Your task to perform on an android device: search for starred emails in the gmail app Image 0: 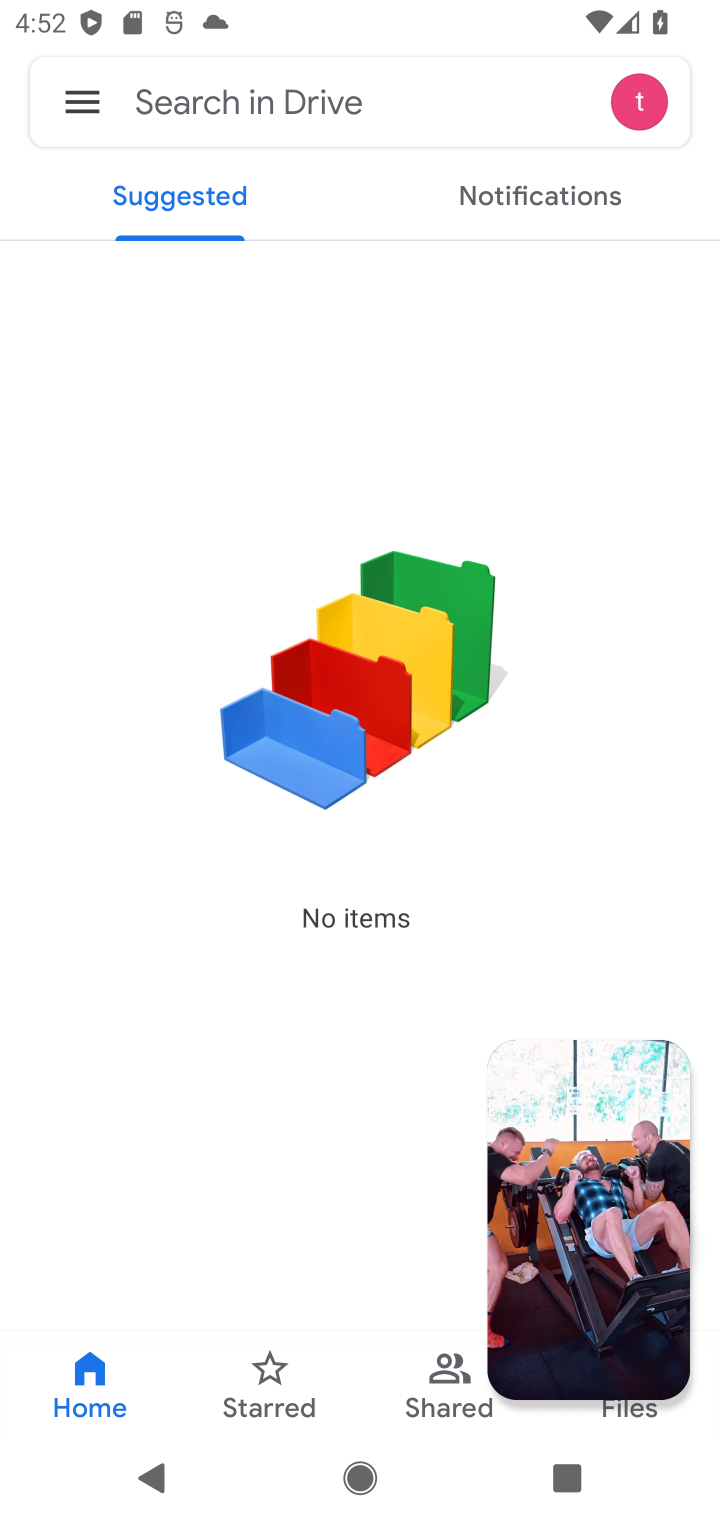
Step 0: click (668, 1081)
Your task to perform on an android device: search for starred emails in the gmail app Image 1: 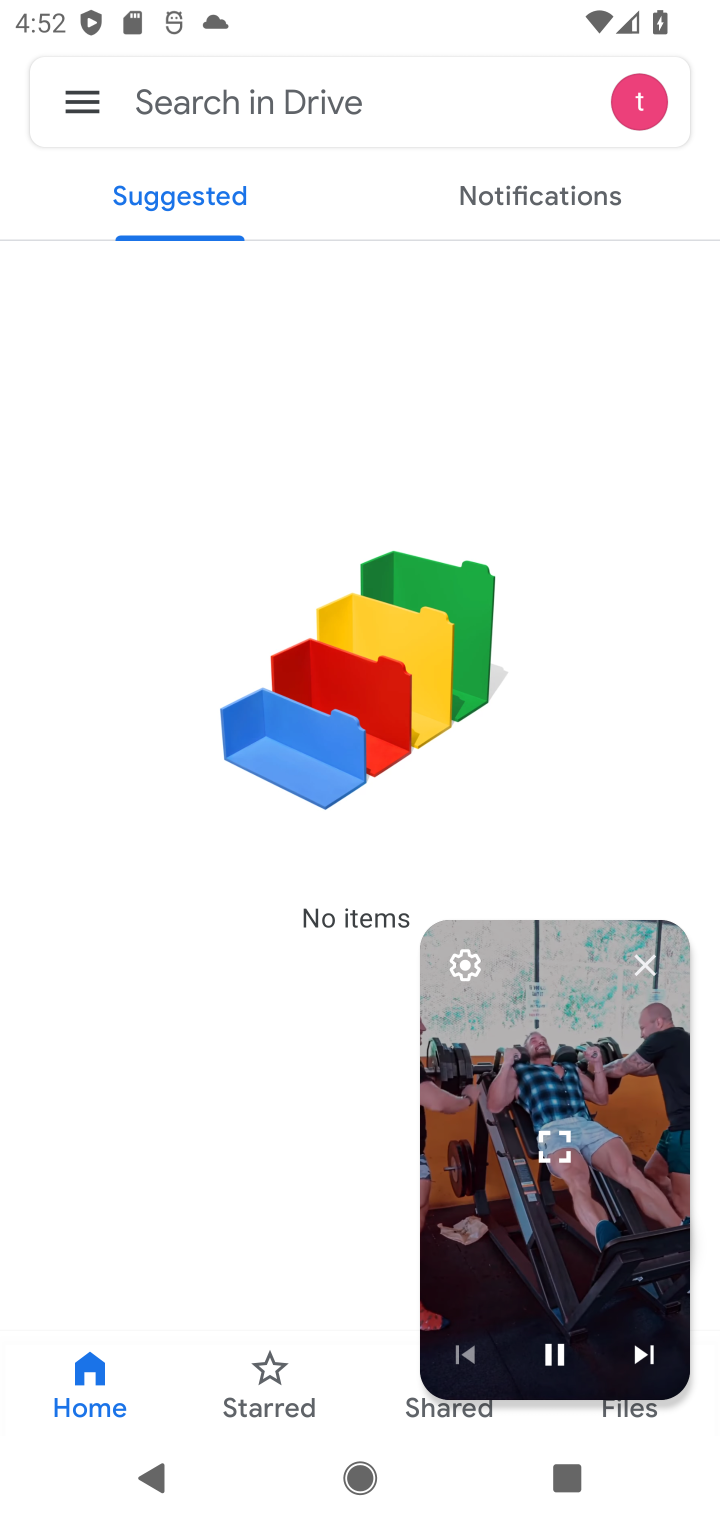
Step 1: click (645, 959)
Your task to perform on an android device: search for starred emails in the gmail app Image 2: 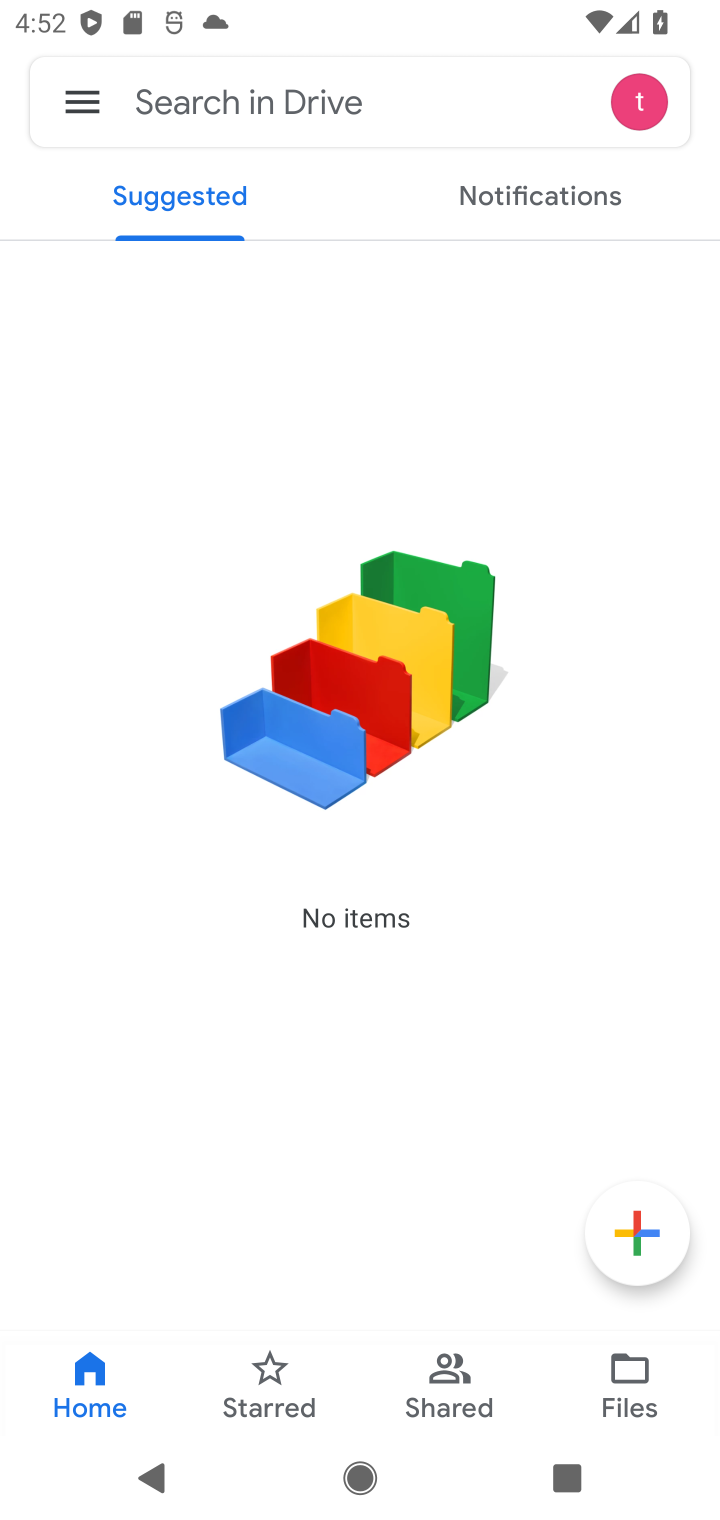
Step 2: press home button
Your task to perform on an android device: search for starred emails in the gmail app Image 3: 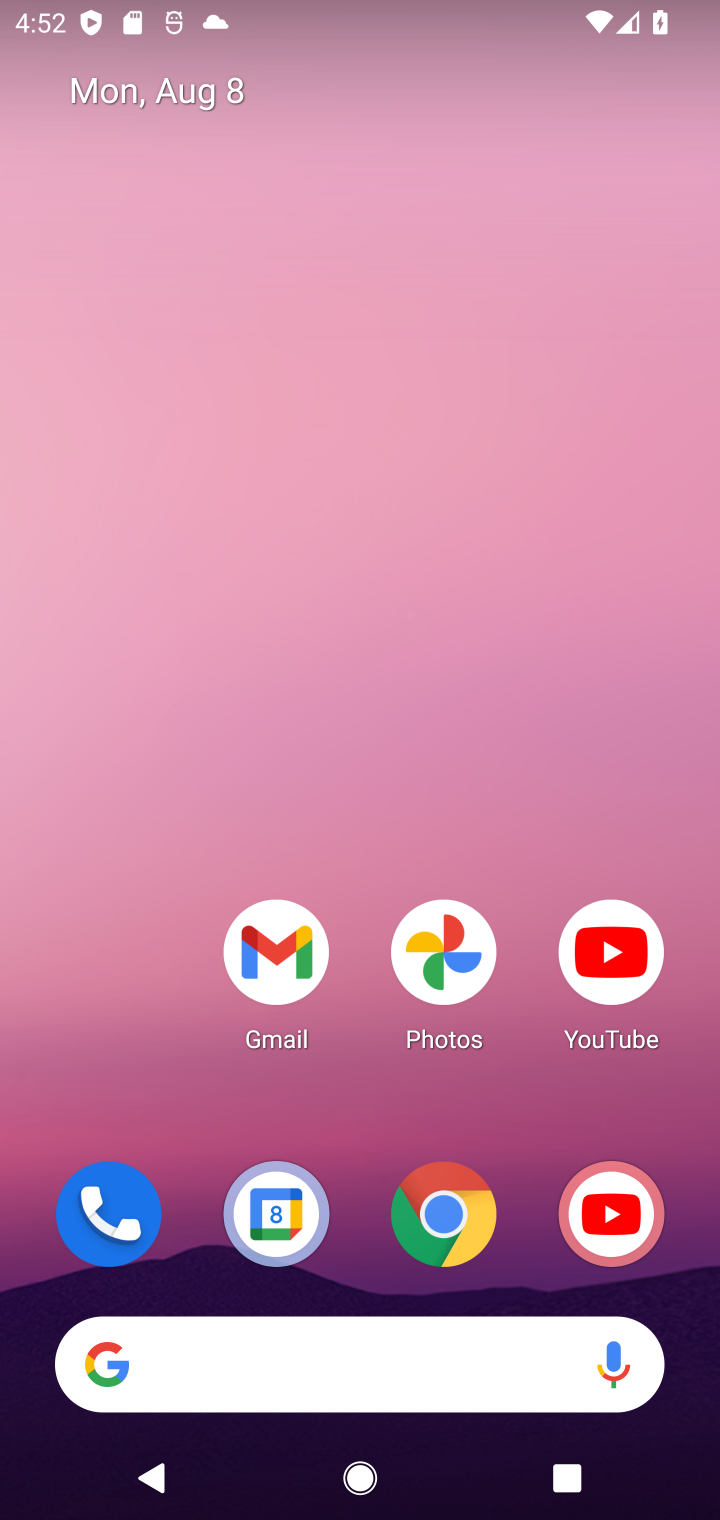
Step 3: drag from (371, 1177) to (337, 91)
Your task to perform on an android device: search for starred emails in the gmail app Image 4: 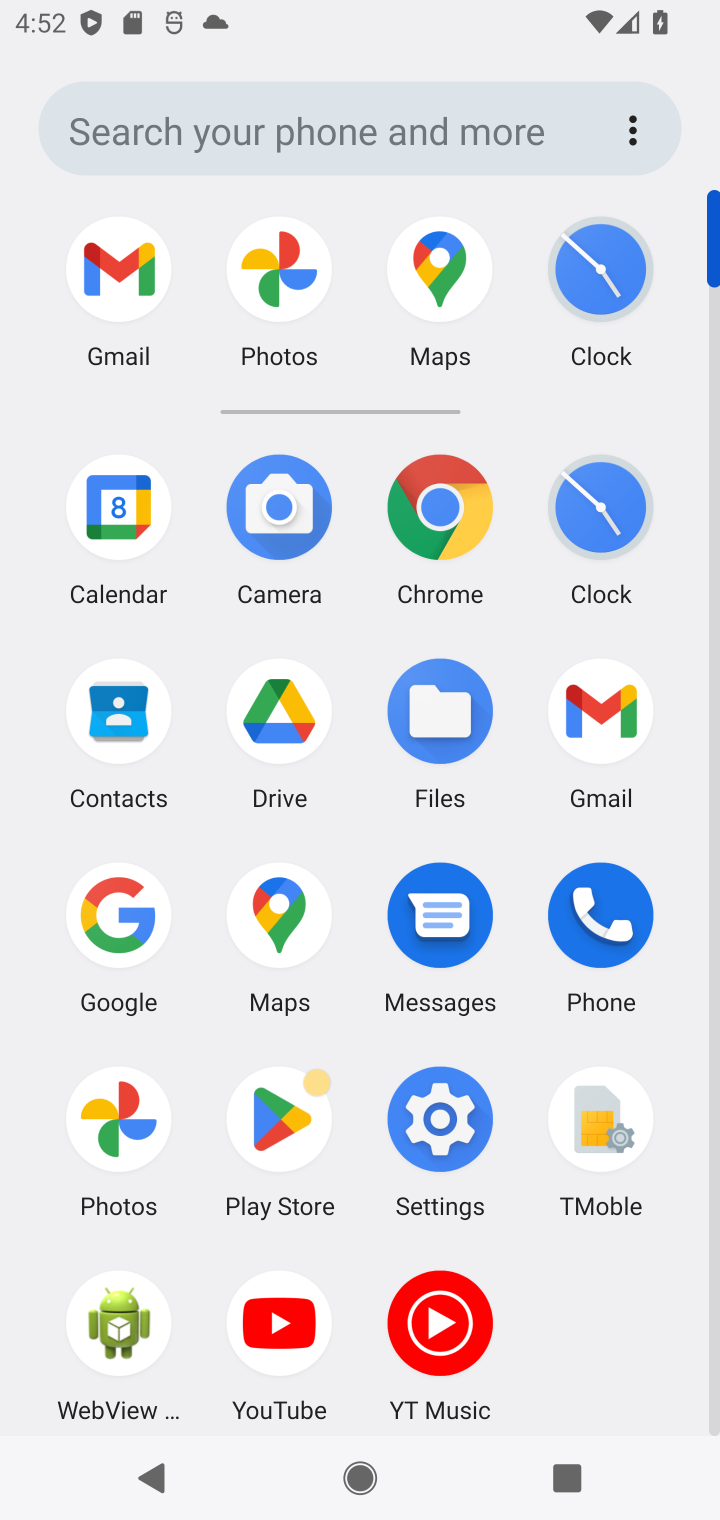
Step 4: click (590, 721)
Your task to perform on an android device: search for starred emails in the gmail app Image 5: 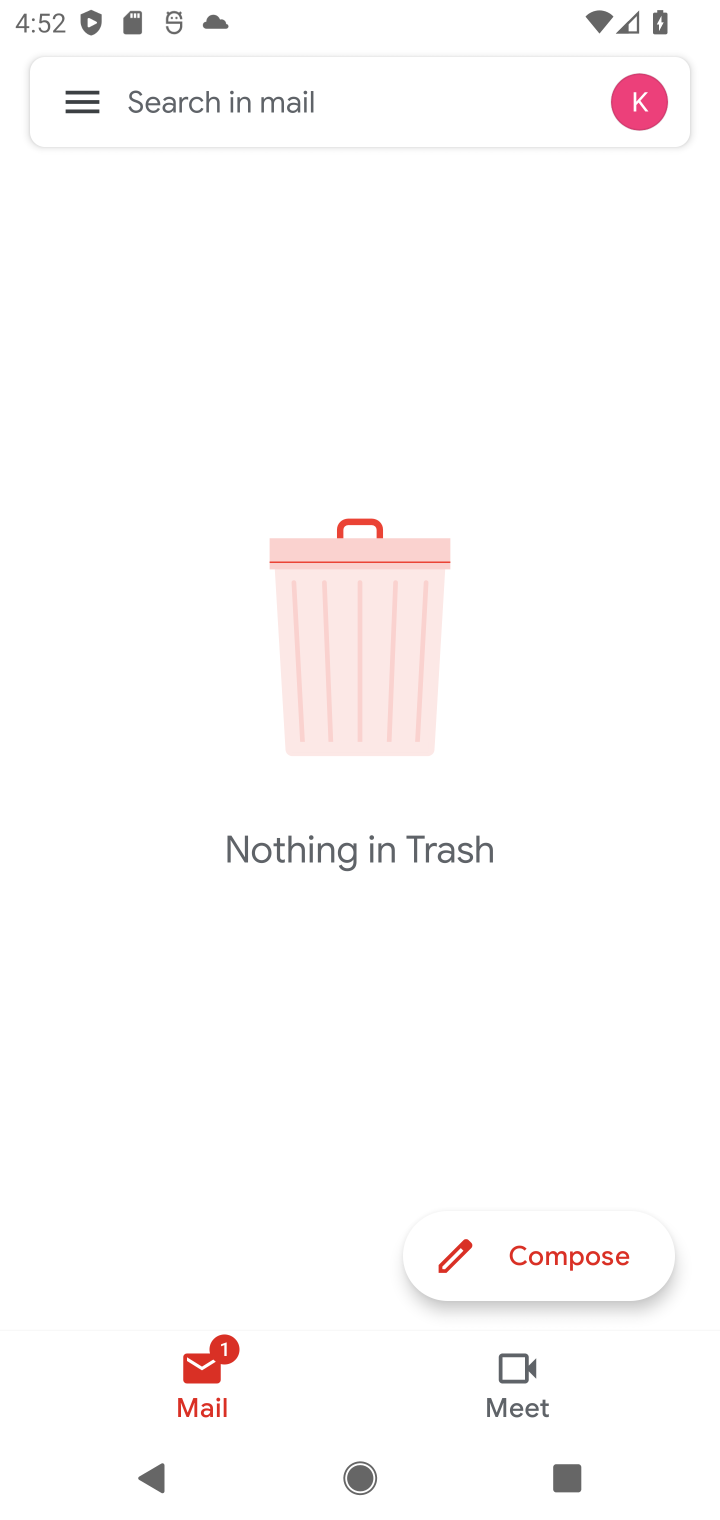
Step 5: click (85, 101)
Your task to perform on an android device: search for starred emails in the gmail app Image 6: 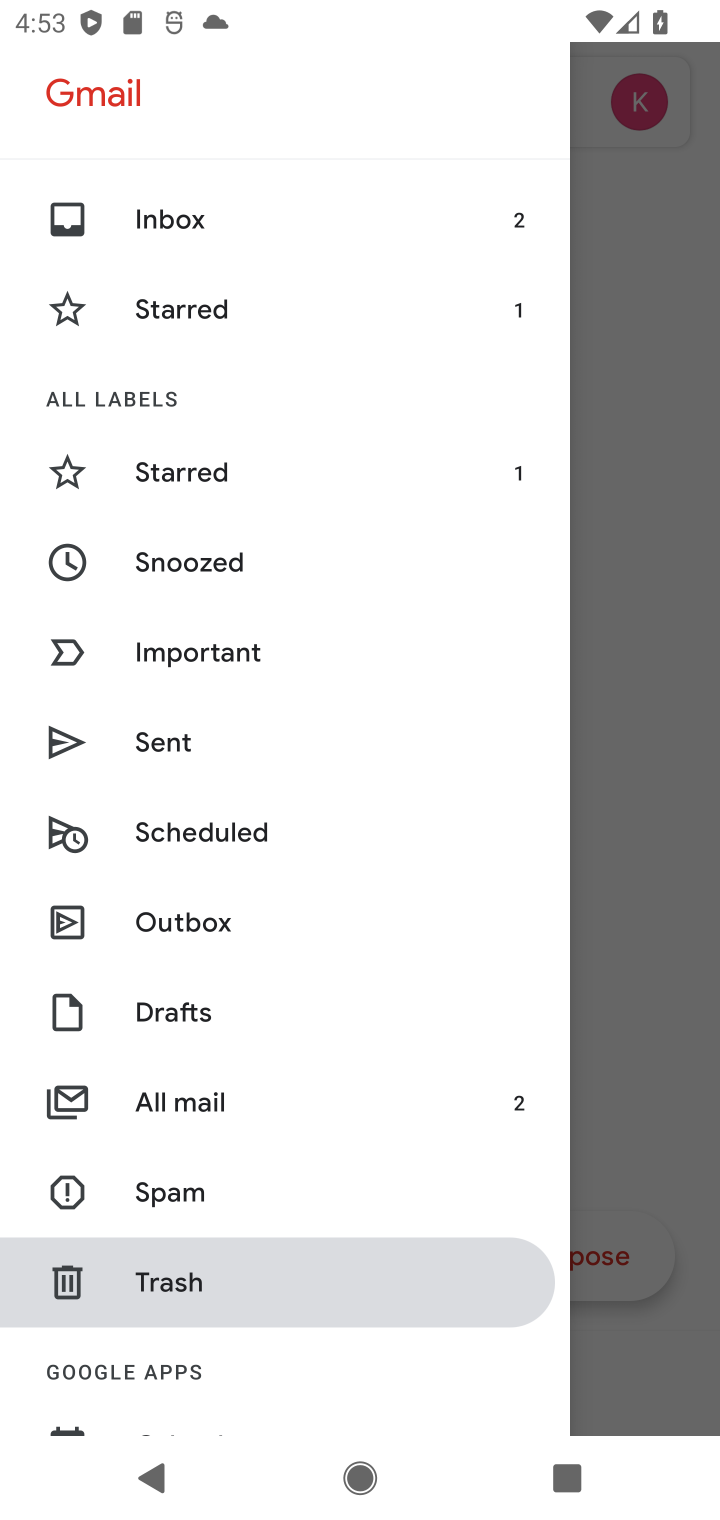
Step 6: click (199, 467)
Your task to perform on an android device: search for starred emails in the gmail app Image 7: 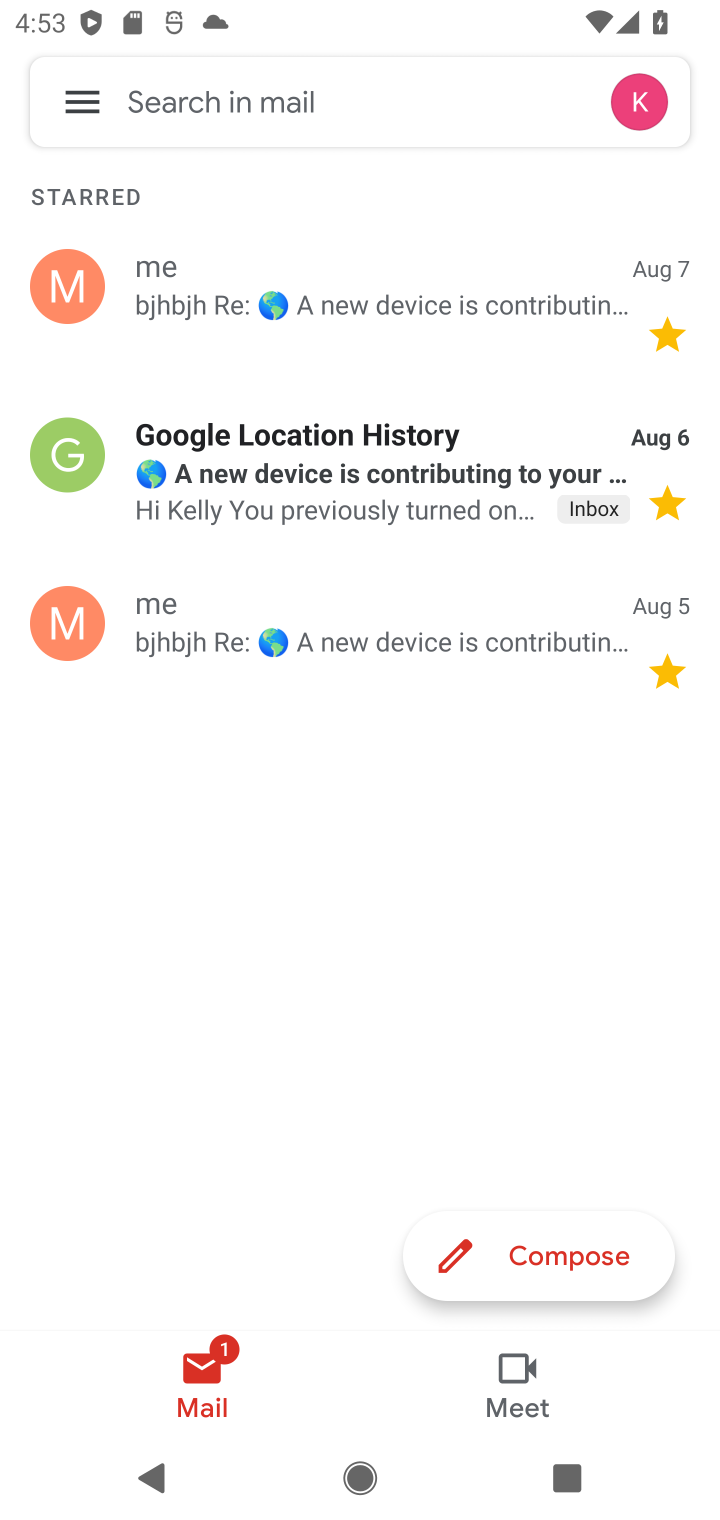
Step 7: task complete